Your task to perform on an android device: all mails in gmail Image 0: 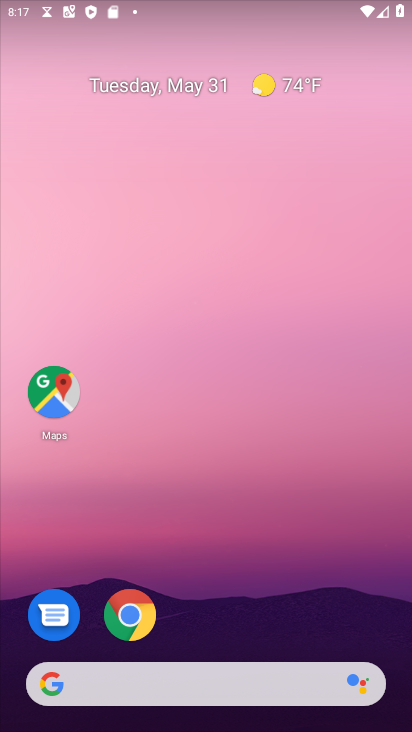
Step 0: drag from (249, 567) to (366, 45)
Your task to perform on an android device: all mails in gmail Image 1: 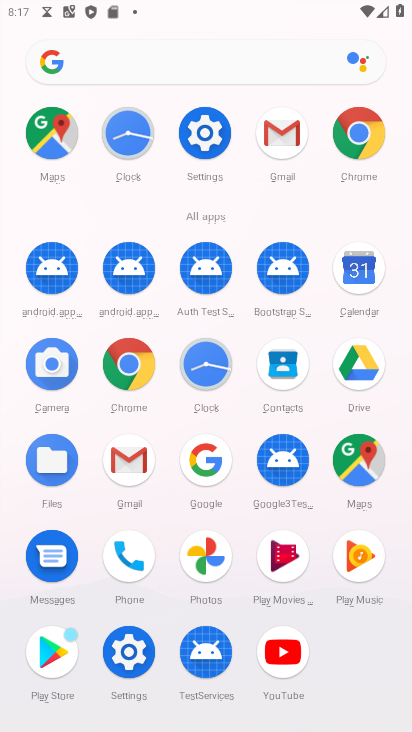
Step 1: click (289, 141)
Your task to perform on an android device: all mails in gmail Image 2: 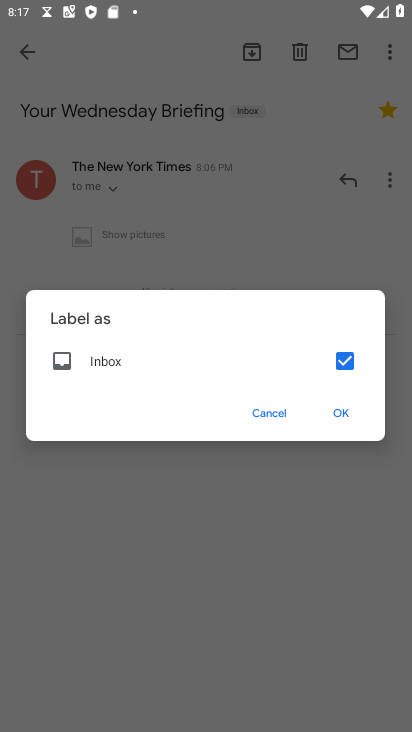
Step 2: click (29, 59)
Your task to perform on an android device: all mails in gmail Image 3: 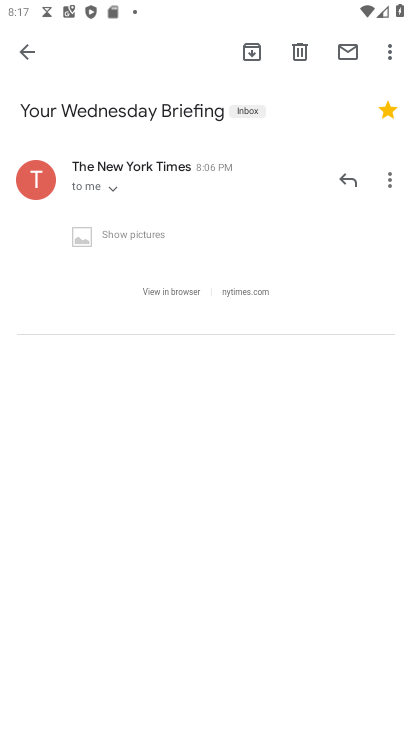
Step 3: click (31, 50)
Your task to perform on an android device: all mails in gmail Image 4: 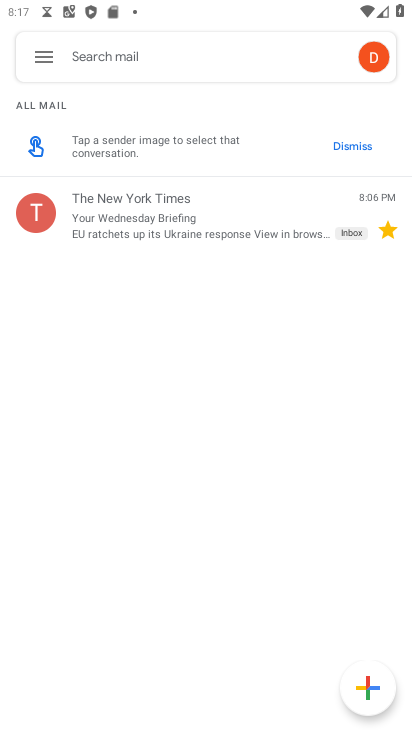
Step 4: task complete